Your task to perform on an android device: turn on the 24-hour format for clock Image 0: 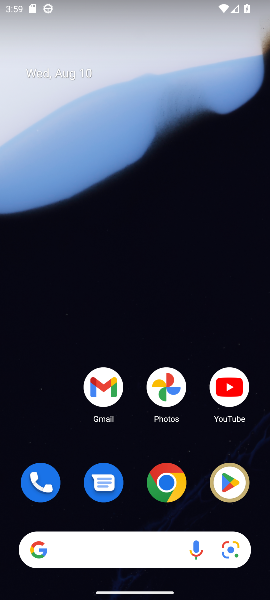
Step 0: drag from (142, 510) to (209, 93)
Your task to perform on an android device: turn on the 24-hour format for clock Image 1: 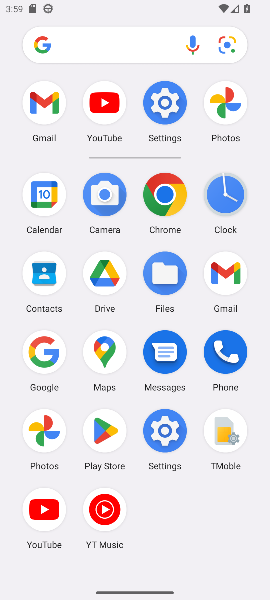
Step 1: click (170, 430)
Your task to perform on an android device: turn on the 24-hour format for clock Image 2: 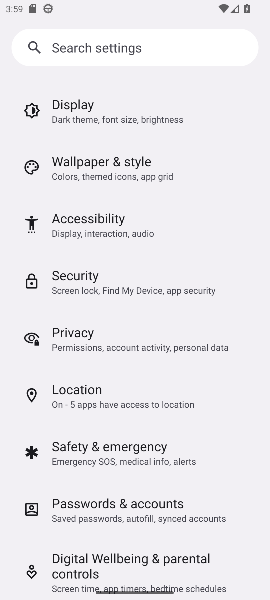
Step 2: press home button
Your task to perform on an android device: turn on the 24-hour format for clock Image 3: 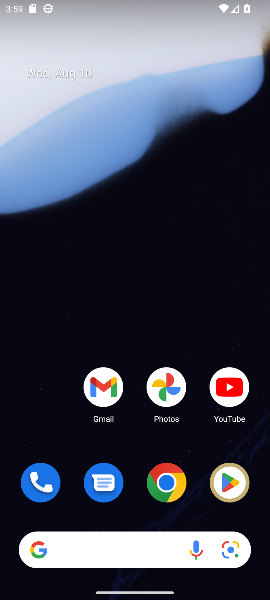
Step 3: drag from (155, 465) to (203, 163)
Your task to perform on an android device: turn on the 24-hour format for clock Image 4: 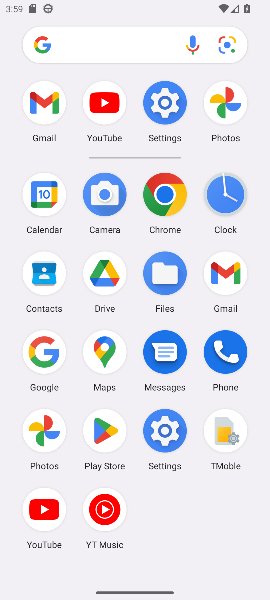
Step 4: click (216, 202)
Your task to perform on an android device: turn on the 24-hour format for clock Image 5: 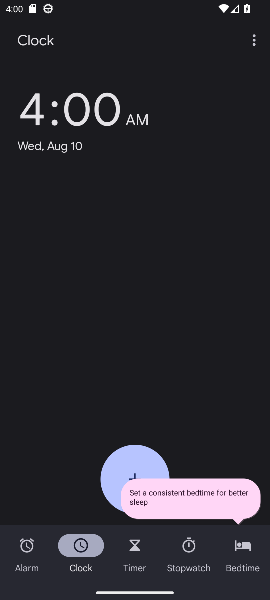
Step 5: click (257, 41)
Your task to perform on an android device: turn on the 24-hour format for clock Image 6: 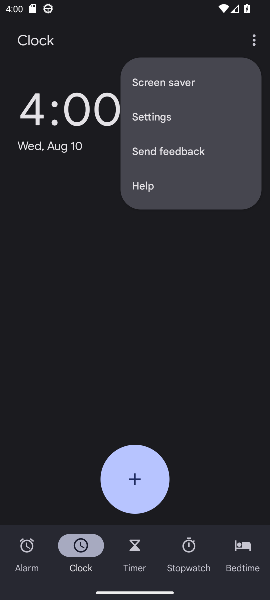
Step 6: click (164, 119)
Your task to perform on an android device: turn on the 24-hour format for clock Image 7: 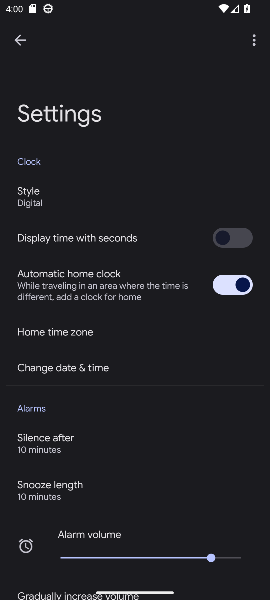
Step 7: click (97, 365)
Your task to perform on an android device: turn on the 24-hour format for clock Image 8: 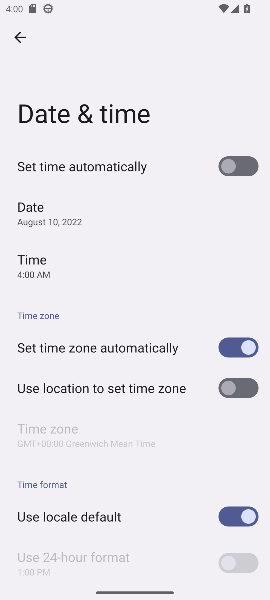
Step 8: drag from (121, 508) to (135, 243)
Your task to perform on an android device: turn on the 24-hour format for clock Image 9: 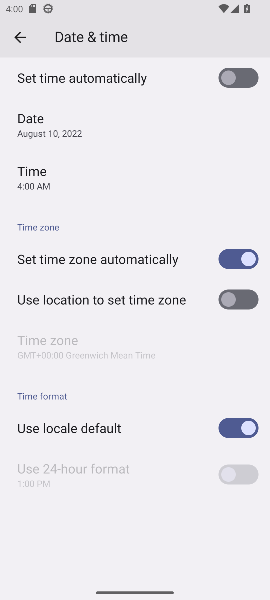
Step 9: click (238, 428)
Your task to perform on an android device: turn on the 24-hour format for clock Image 10: 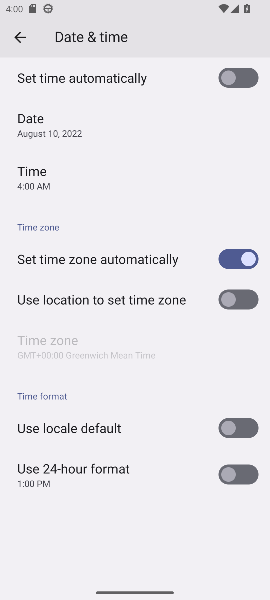
Step 10: click (245, 471)
Your task to perform on an android device: turn on the 24-hour format for clock Image 11: 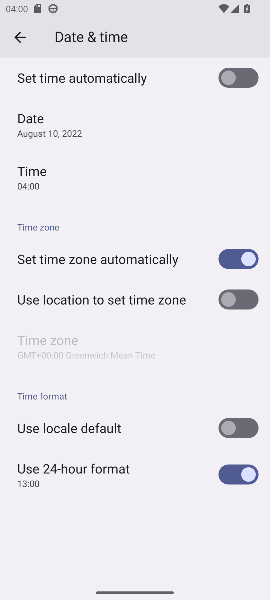
Step 11: task complete